Your task to perform on an android device: Turn off the flashlight Image 0: 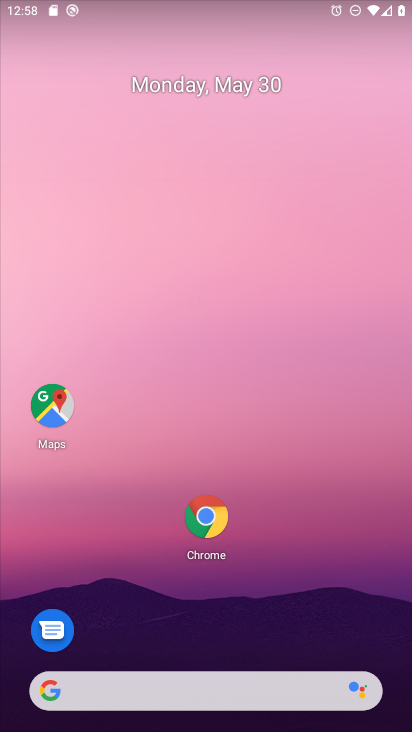
Step 0: press home button
Your task to perform on an android device: Turn off the flashlight Image 1: 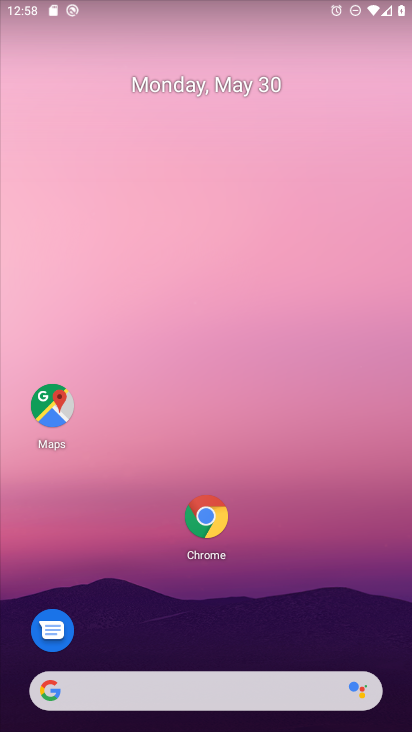
Step 1: task complete